Your task to perform on an android device: Open Google Maps Image 0: 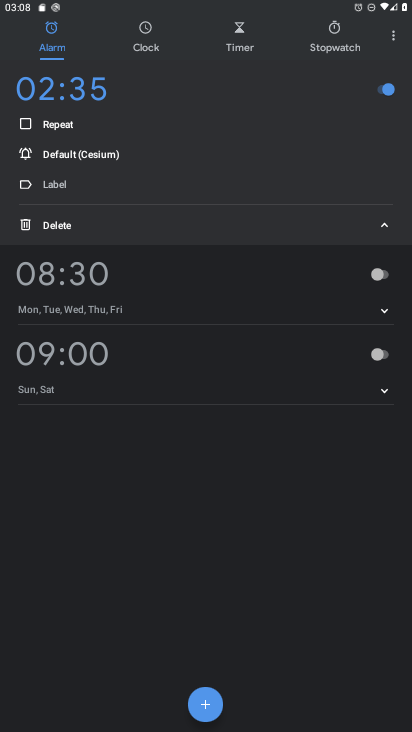
Step 0: press home button
Your task to perform on an android device: Open Google Maps Image 1: 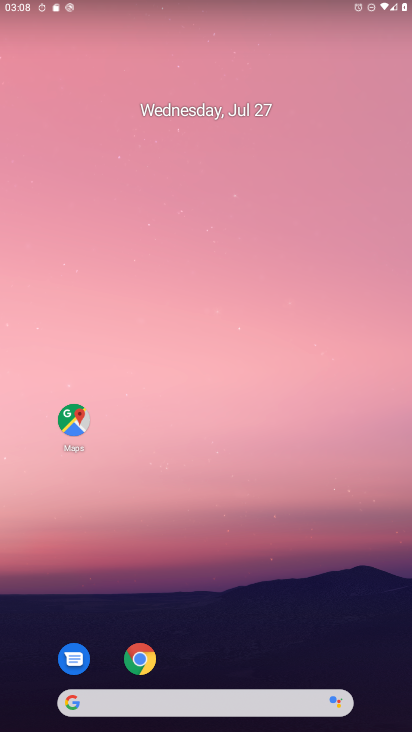
Step 1: drag from (324, 646) to (316, 144)
Your task to perform on an android device: Open Google Maps Image 2: 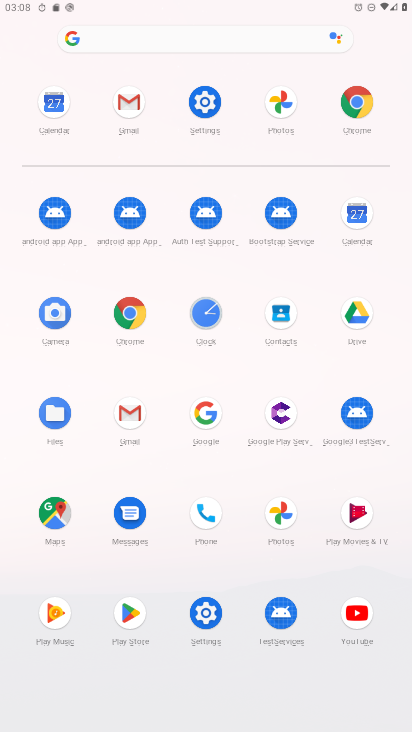
Step 2: click (58, 521)
Your task to perform on an android device: Open Google Maps Image 3: 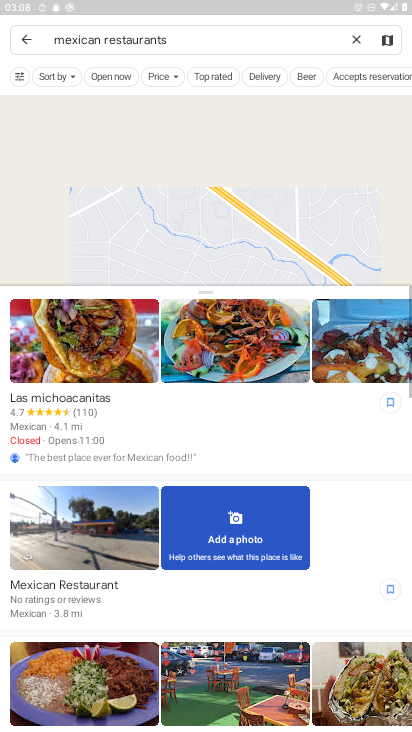
Step 3: task complete